Your task to perform on an android device: Go to Wikipedia Image 0: 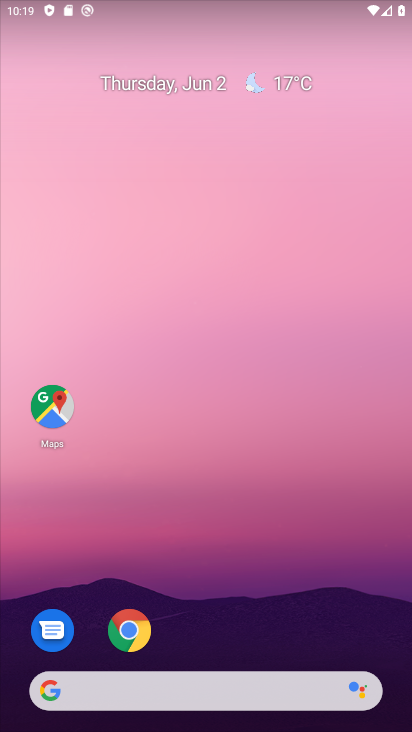
Step 0: press home button
Your task to perform on an android device: Go to Wikipedia Image 1: 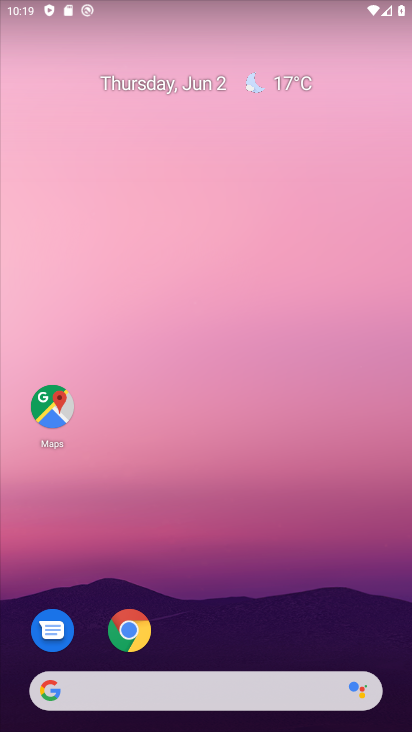
Step 1: click (127, 630)
Your task to perform on an android device: Go to Wikipedia Image 2: 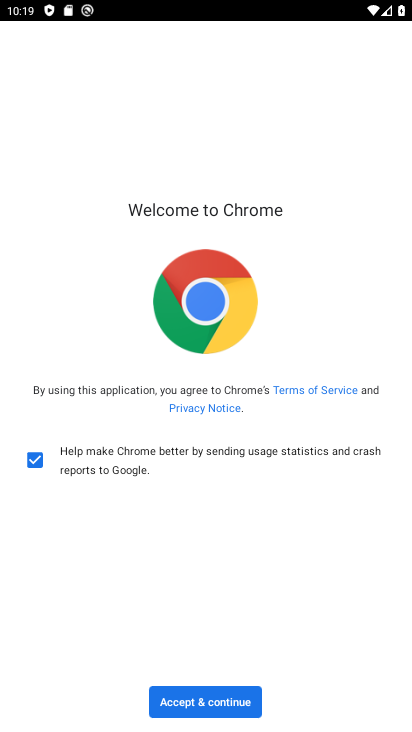
Step 2: click (195, 701)
Your task to perform on an android device: Go to Wikipedia Image 3: 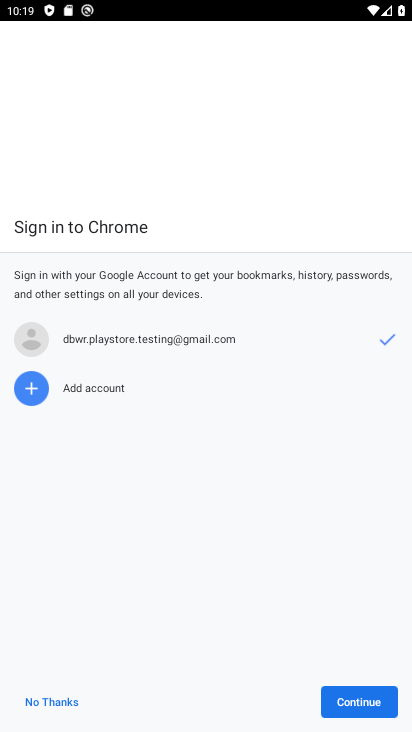
Step 3: click (341, 698)
Your task to perform on an android device: Go to Wikipedia Image 4: 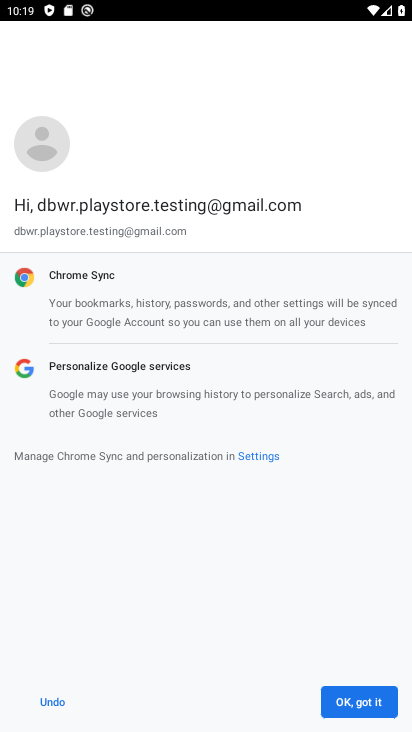
Step 4: click (356, 699)
Your task to perform on an android device: Go to Wikipedia Image 5: 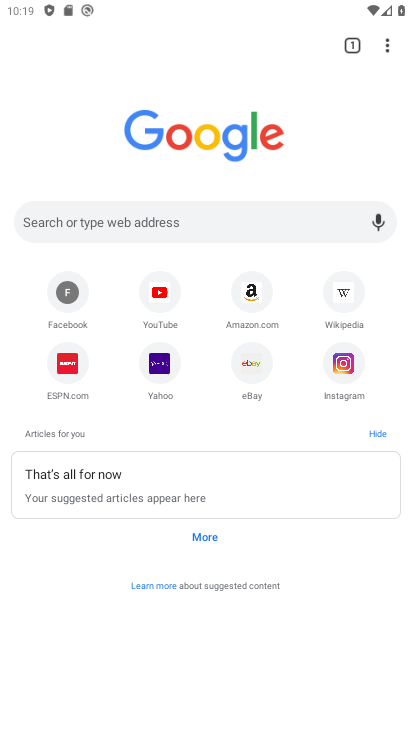
Step 5: click (343, 300)
Your task to perform on an android device: Go to Wikipedia Image 6: 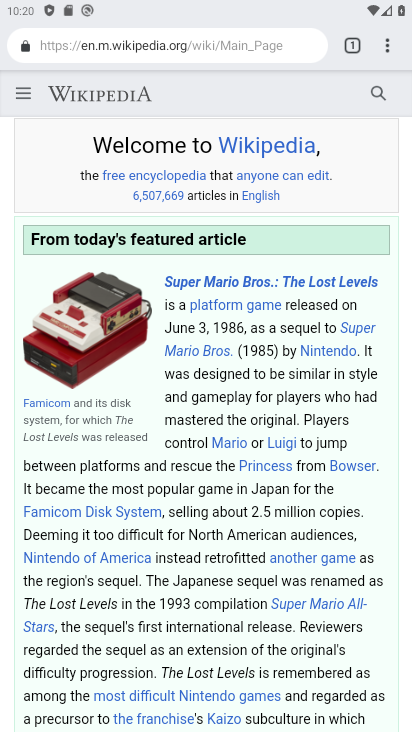
Step 6: task complete